Your task to perform on an android device: turn on notifications settings in the gmail app Image 0: 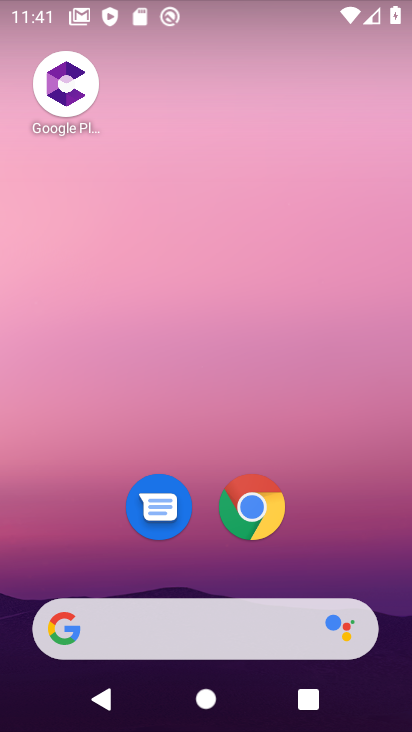
Step 0: drag from (339, 541) to (255, 110)
Your task to perform on an android device: turn on notifications settings in the gmail app Image 1: 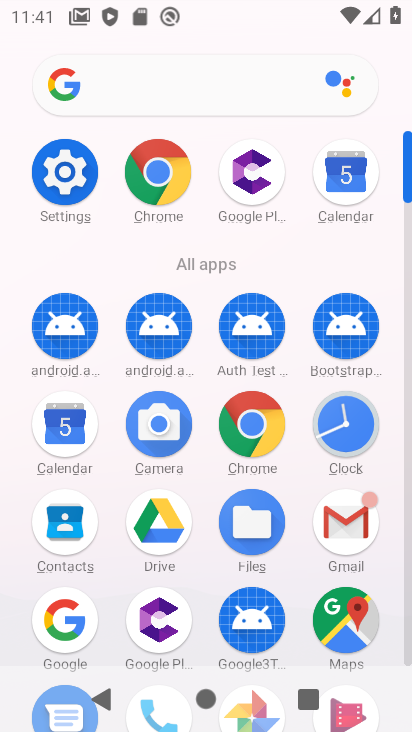
Step 1: click (331, 500)
Your task to perform on an android device: turn on notifications settings in the gmail app Image 2: 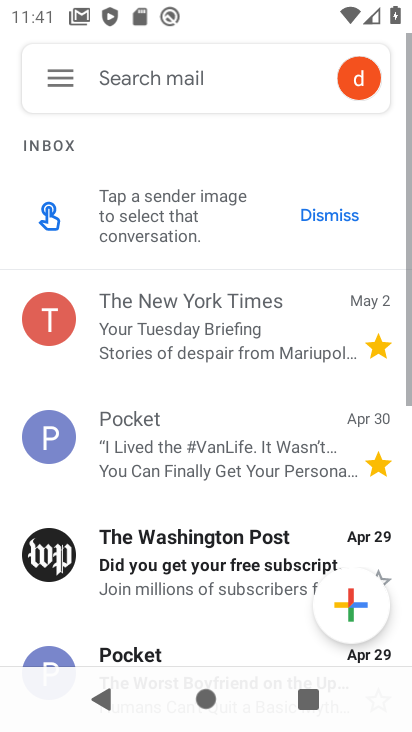
Step 2: click (52, 78)
Your task to perform on an android device: turn on notifications settings in the gmail app Image 3: 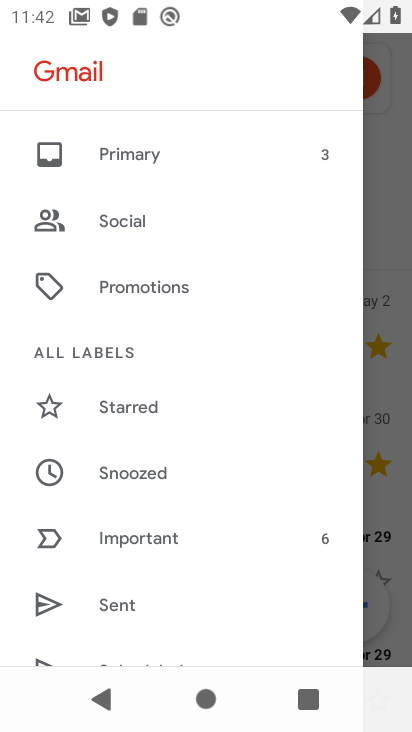
Step 3: drag from (204, 584) to (186, 313)
Your task to perform on an android device: turn on notifications settings in the gmail app Image 4: 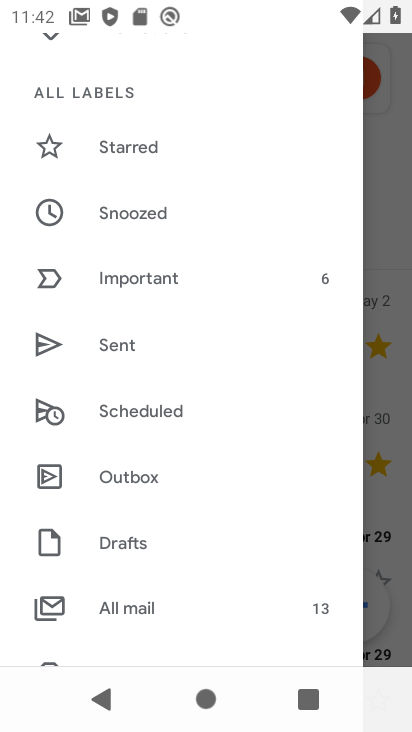
Step 4: drag from (194, 533) to (151, 0)
Your task to perform on an android device: turn on notifications settings in the gmail app Image 5: 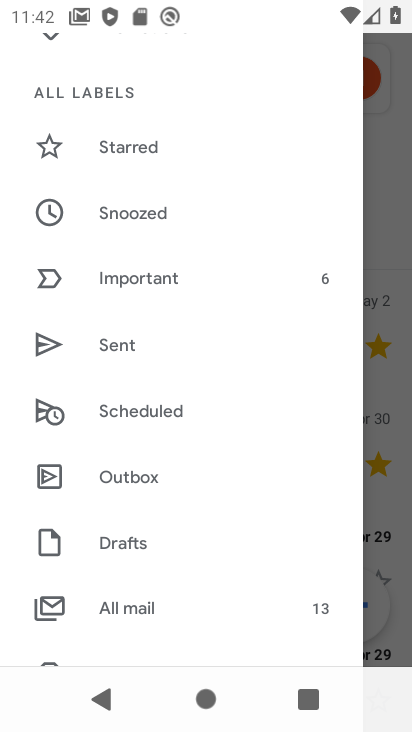
Step 5: drag from (156, 525) to (151, 16)
Your task to perform on an android device: turn on notifications settings in the gmail app Image 6: 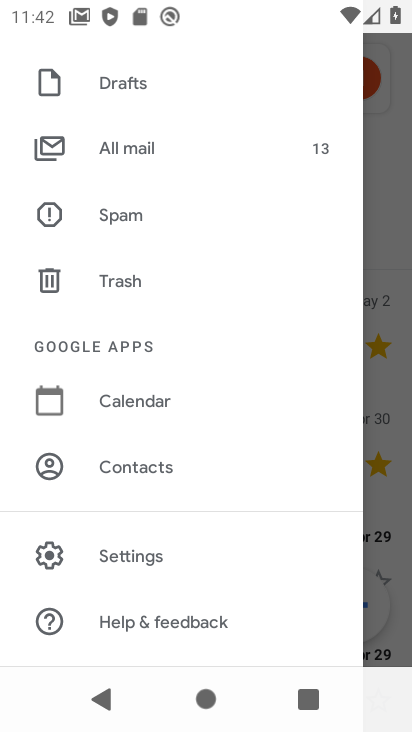
Step 6: click (127, 559)
Your task to perform on an android device: turn on notifications settings in the gmail app Image 7: 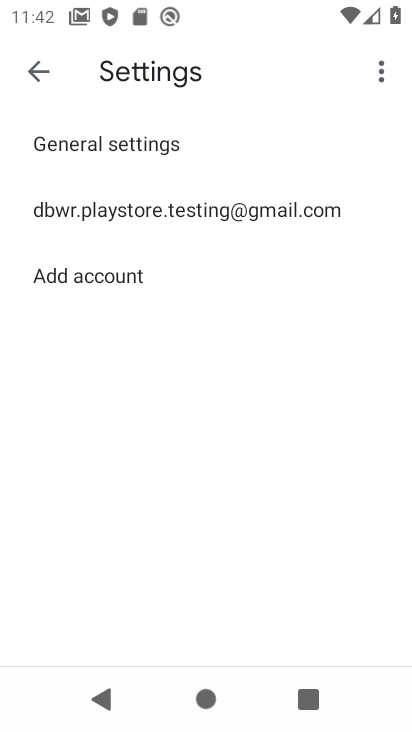
Step 7: click (120, 134)
Your task to perform on an android device: turn on notifications settings in the gmail app Image 8: 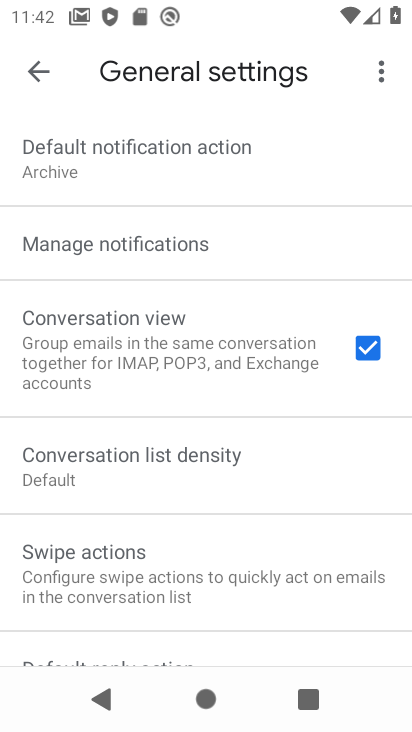
Step 8: click (120, 247)
Your task to perform on an android device: turn on notifications settings in the gmail app Image 9: 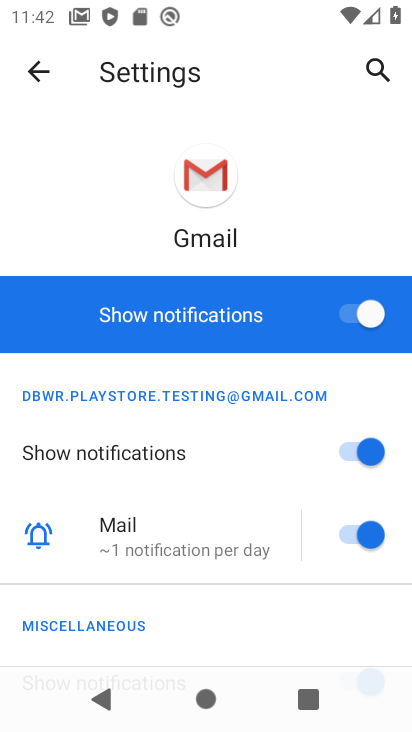
Step 9: task complete